Your task to perform on an android device: When is my next appointment? Image 0: 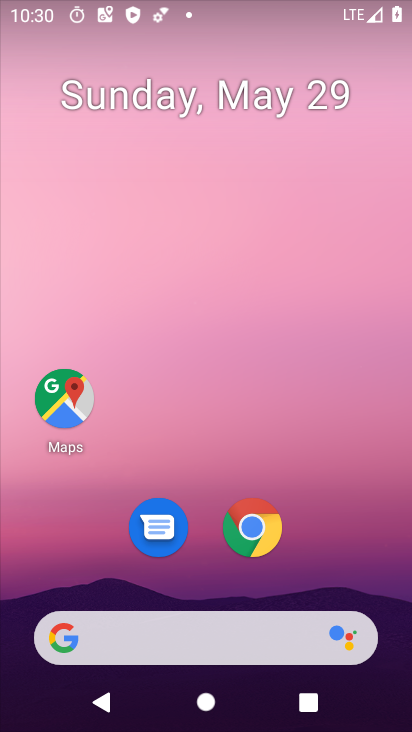
Step 0: drag from (362, 542) to (306, 154)
Your task to perform on an android device: When is my next appointment? Image 1: 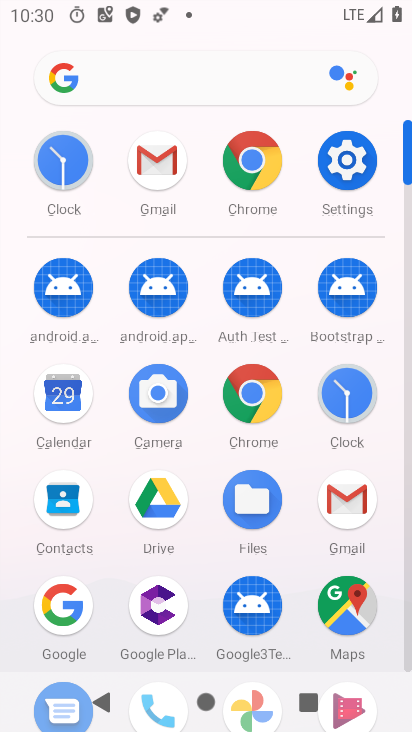
Step 1: click (69, 391)
Your task to perform on an android device: When is my next appointment? Image 2: 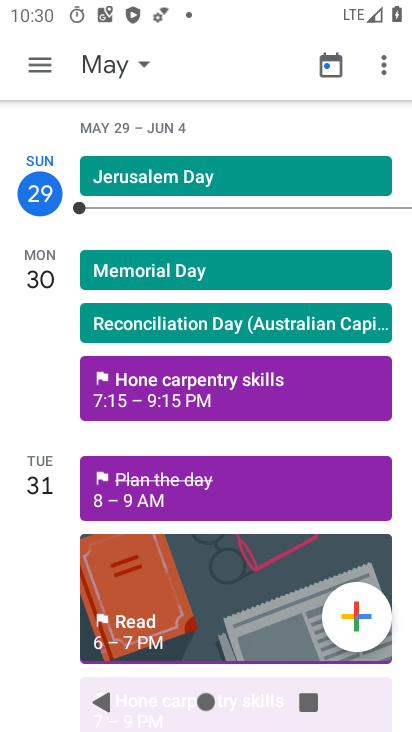
Step 2: task complete